Your task to perform on an android device: check battery use Image 0: 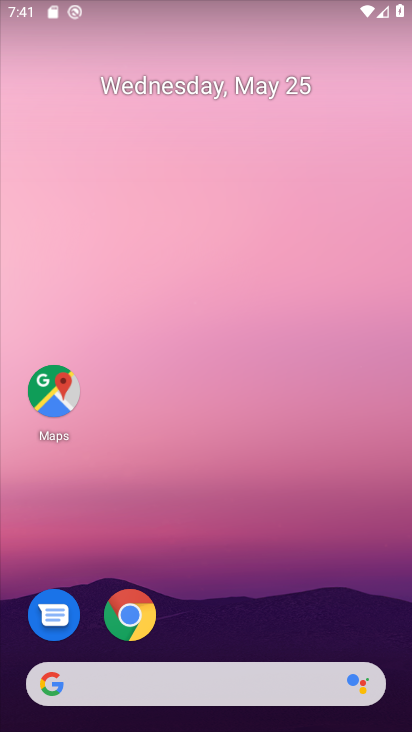
Step 0: drag from (249, 507) to (251, 41)
Your task to perform on an android device: check battery use Image 1: 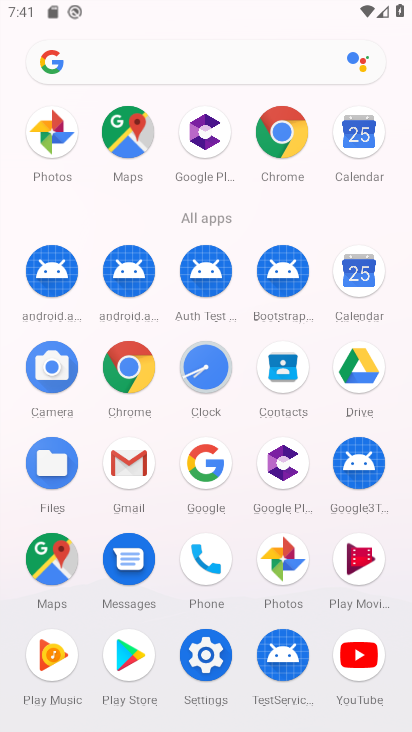
Step 1: drag from (13, 581) to (13, 236)
Your task to perform on an android device: check battery use Image 2: 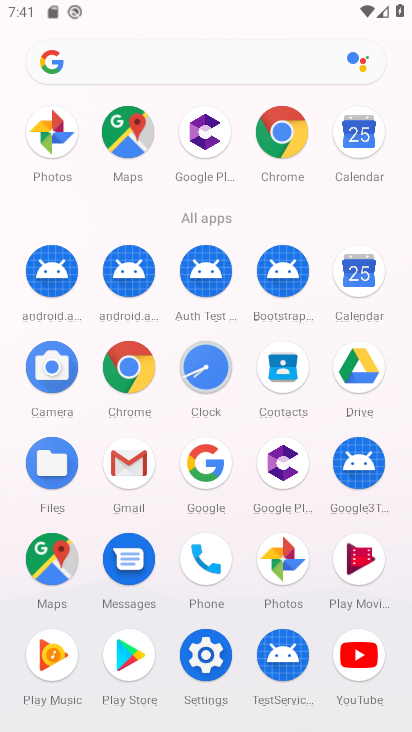
Step 2: click (205, 654)
Your task to perform on an android device: check battery use Image 3: 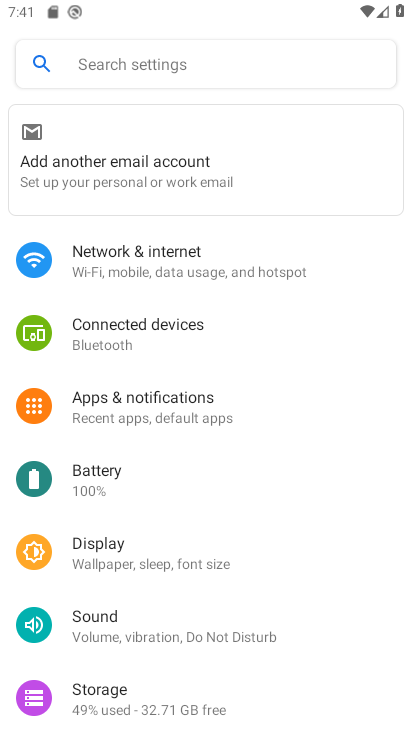
Step 3: click (111, 495)
Your task to perform on an android device: check battery use Image 4: 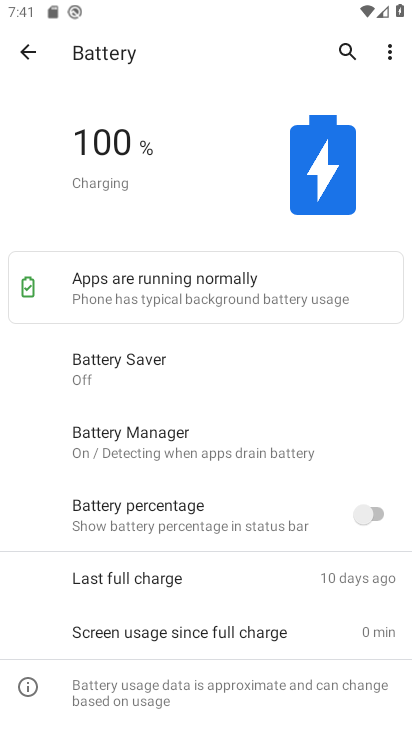
Step 4: task complete